Your task to perform on an android device: What's the weather? Image 0: 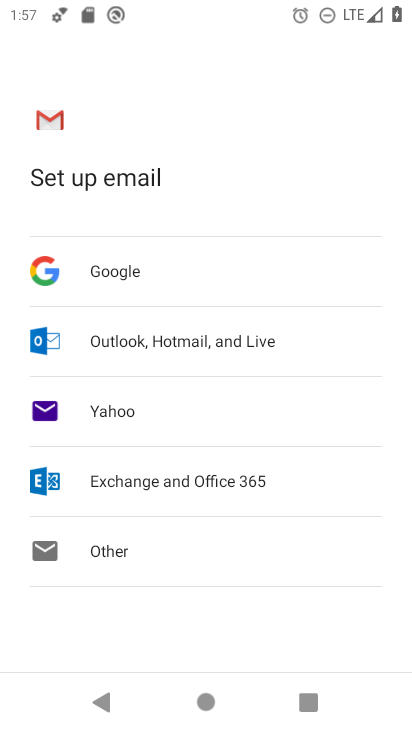
Step 0: press home button
Your task to perform on an android device: What's the weather? Image 1: 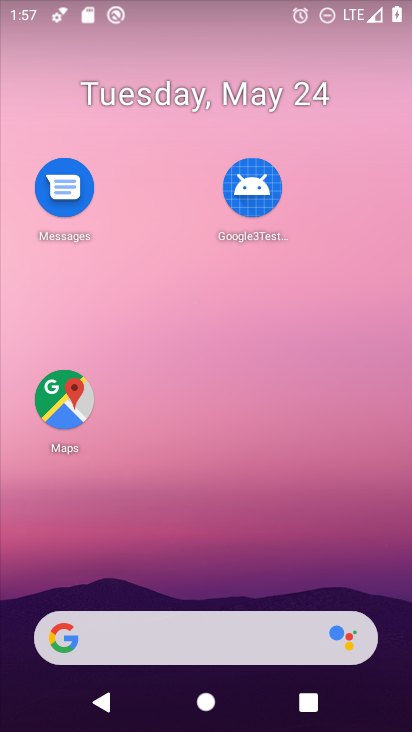
Step 1: click (179, 666)
Your task to perform on an android device: What's the weather? Image 2: 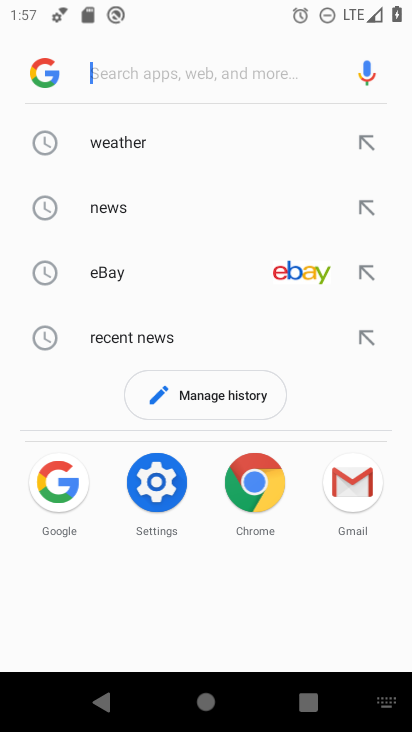
Step 2: click (110, 146)
Your task to perform on an android device: What's the weather? Image 3: 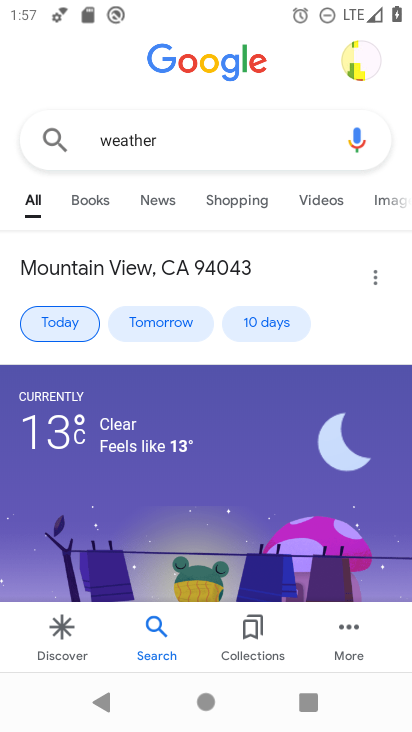
Step 3: drag from (277, 554) to (277, 246)
Your task to perform on an android device: What's the weather? Image 4: 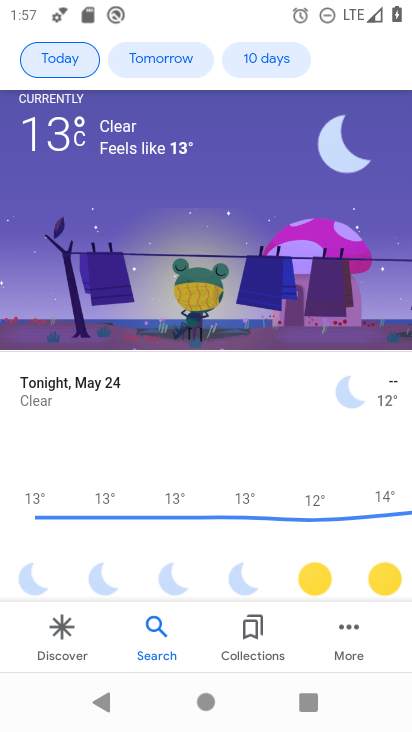
Step 4: drag from (270, 471) to (266, 225)
Your task to perform on an android device: What's the weather? Image 5: 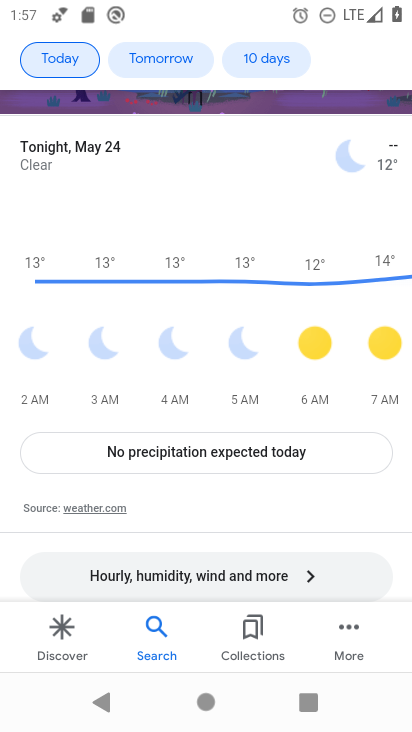
Step 5: click (3, 329)
Your task to perform on an android device: What's the weather? Image 6: 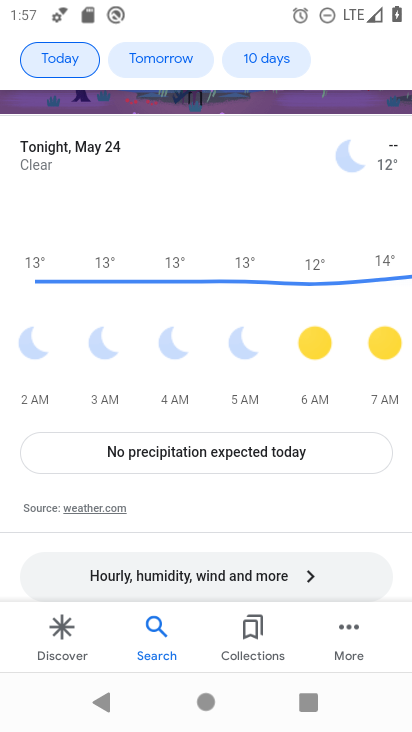
Step 6: task complete